Your task to perform on an android device: Go to Android settings Image 0: 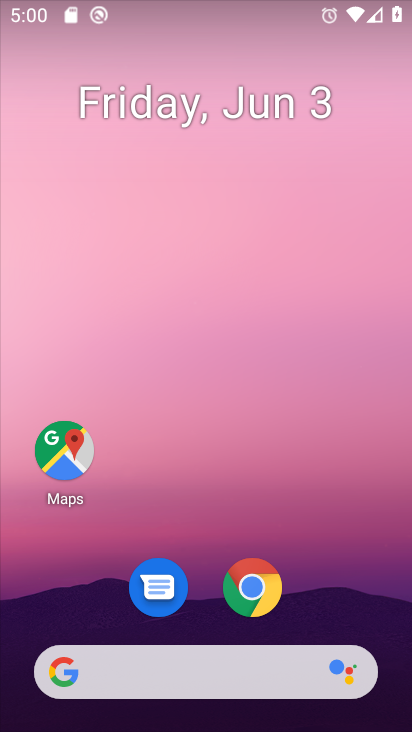
Step 0: drag from (136, 726) to (150, 46)
Your task to perform on an android device: Go to Android settings Image 1: 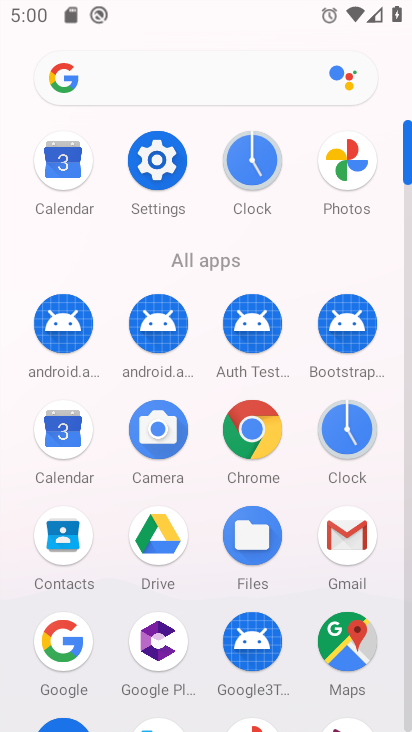
Step 1: click (140, 172)
Your task to perform on an android device: Go to Android settings Image 2: 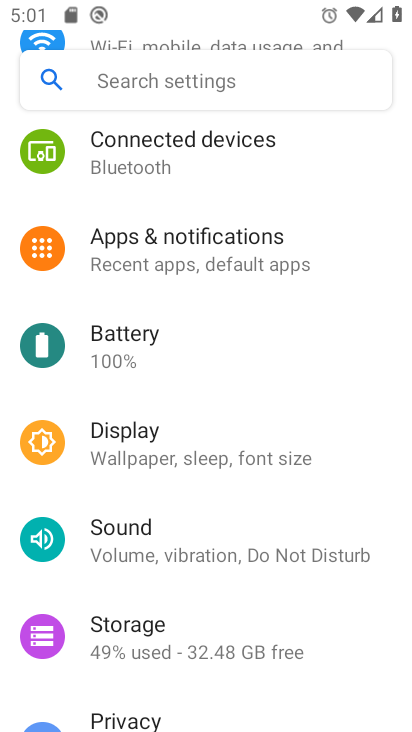
Step 2: task complete